Your task to perform on an android device: Check the news Image 0: 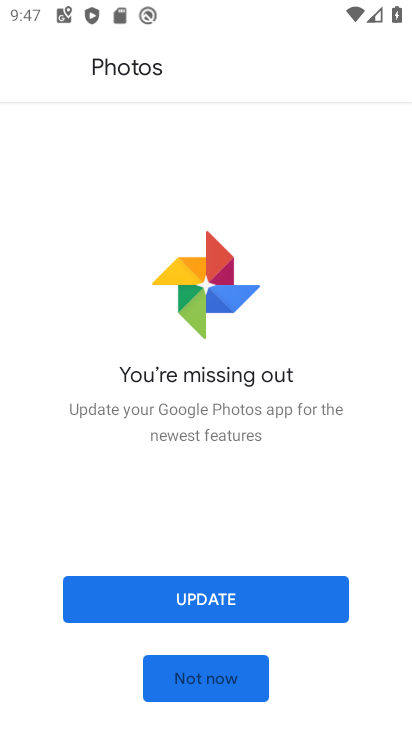
Step 0: press home button
Your task to perform on an android device: Check the news Image 1: 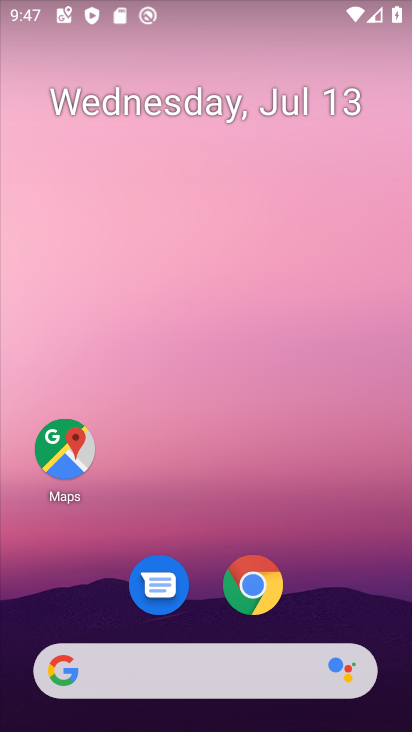
Step 1: click (257, 668)
Your task to perform on an android device: Check the news Image 2: 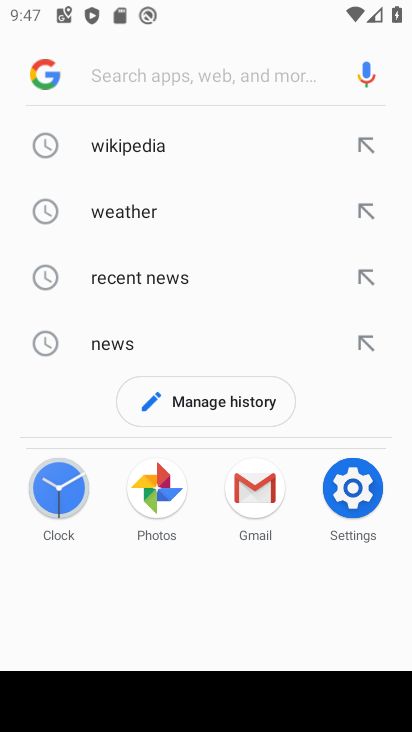
Step 2: click (119, 341)
Your task to perform on an android device: Check the news Image 3: 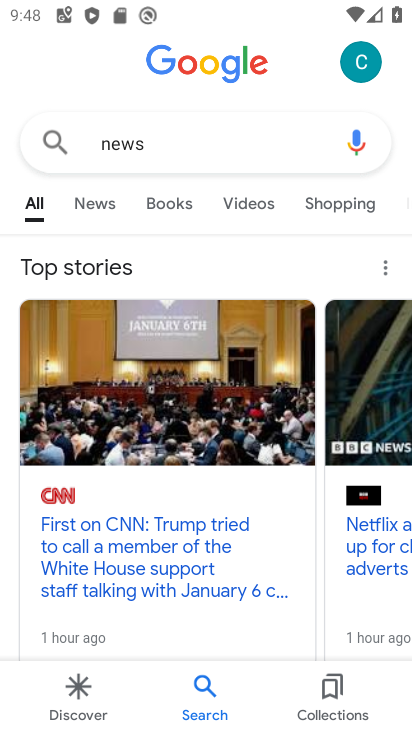
Step 3: click (103, 195)
Your task to perform on an android device: Check the news Image 4: 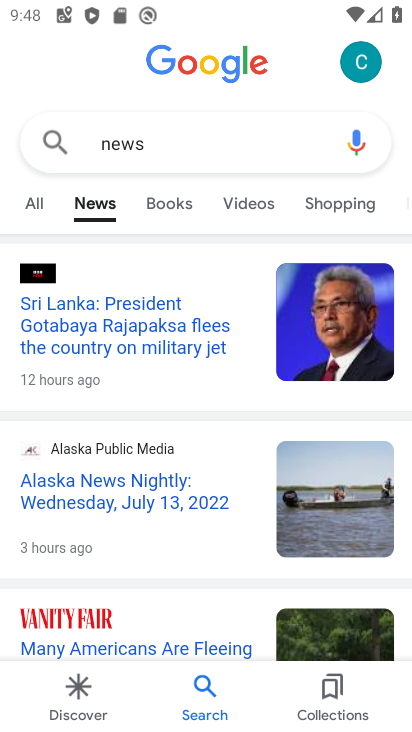
Step 4: drag from (157, 559) to (162, 337)
Your task to perform on an android device: Check the news Image 5: 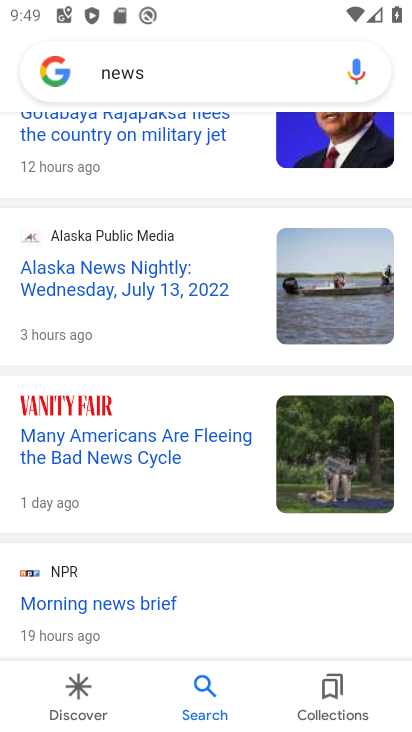
Step 5: click (168, 454)
Your task to perform on an android device: Check the news Image 6: 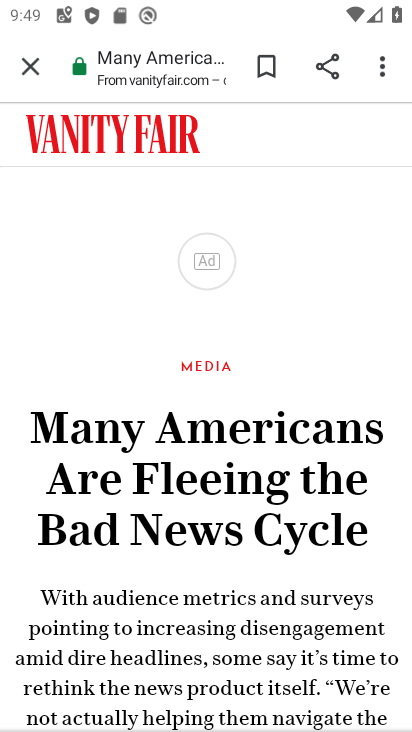
Step 6: task complete